Your task to perform on an android device: Open Google Chrome and click the shortcut for Amazon.com Image 0: 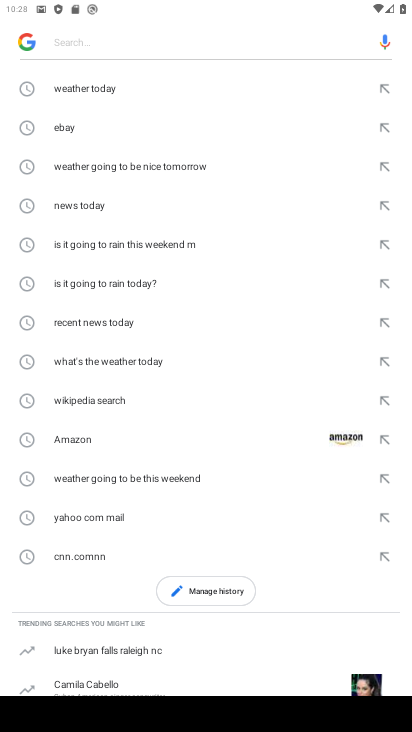
Step 0: press home button
Your task to perform on an android device: Open Google Chrome and click the shortcut for Amazon.com Image 1: 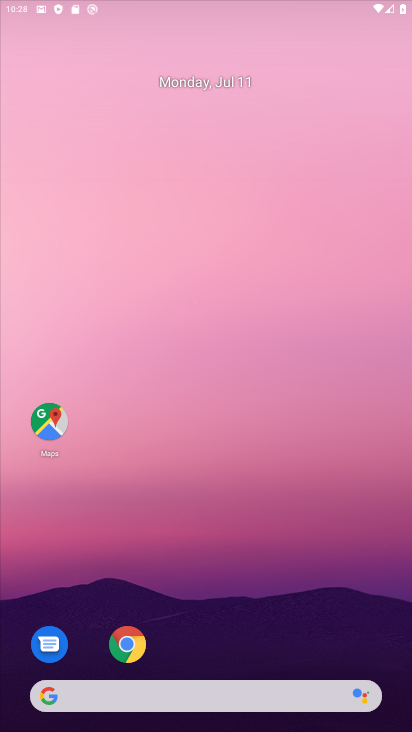
Step 1: drag from (232, 597) to (215, 137)
Your task to perform on an android device: Open Google Chrome and click the shortcut for Amazon.com Image 2: 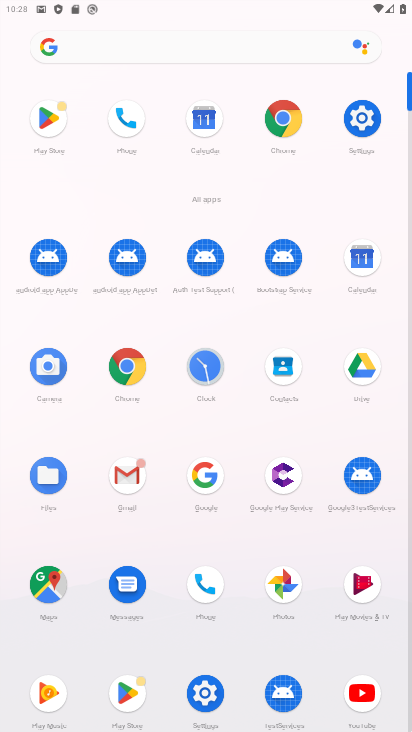
Step 2: click (290, 110)
Your task to perform on an android device: Open Google Chrome and click the shortcut for Amazon.com Image 3: 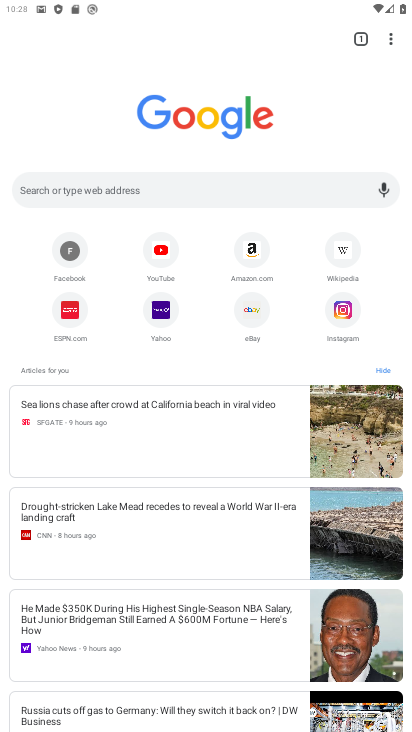
Step 3: click (392, 48)
Your task to perform on an android device: Open Google Chrome and click the shortcut for Amazon.com Image 4: 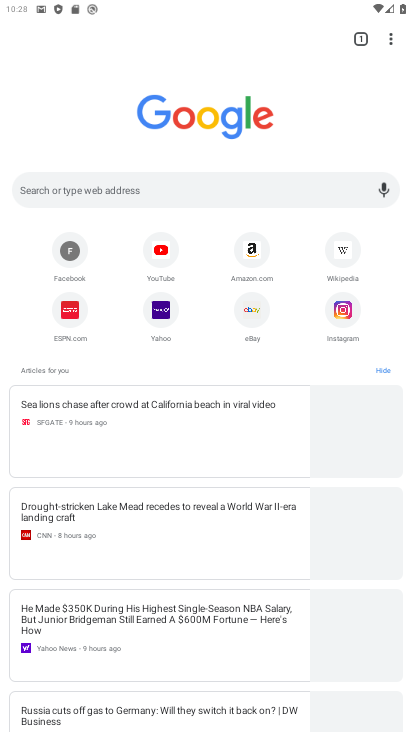
Step 4: click (82, 106)
Your task to perform on an android device: Open Google Chrome and click the shortcut for Amazon.com Image 5: 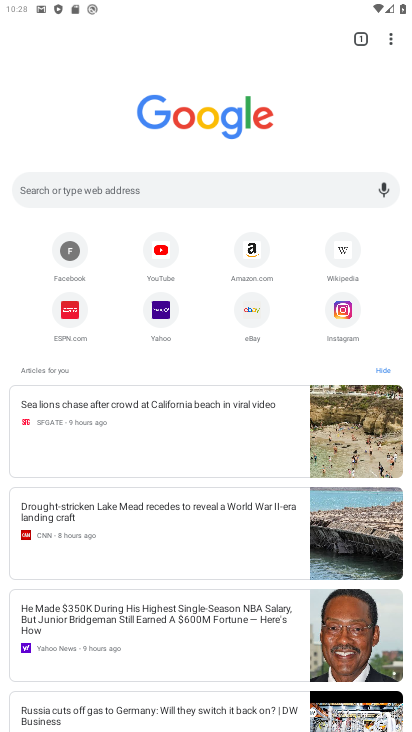
Step 5: click (250, 244)
Your task to perform on an android device: Open Google Chrome and click the shortcut for Amazon.com Image 6: 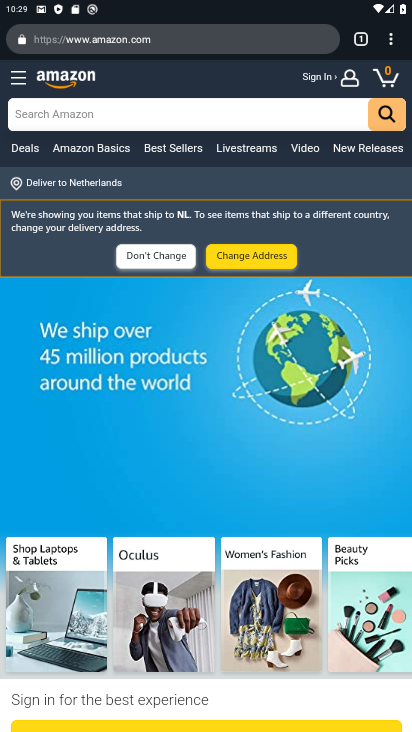
Step 6: task complete